Your task to perform on an android device: allow notifications from all sites in the chrome app Image 0: 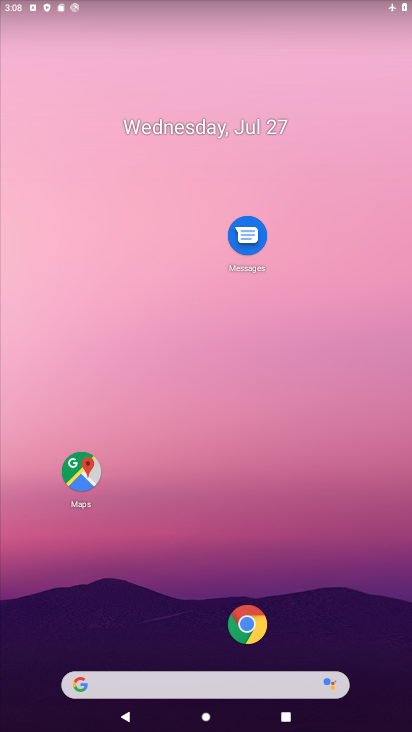
Step 0: click (251, 626)
Your task to perform on an android device: allow notifications from all sites in the chrome app Image 1: 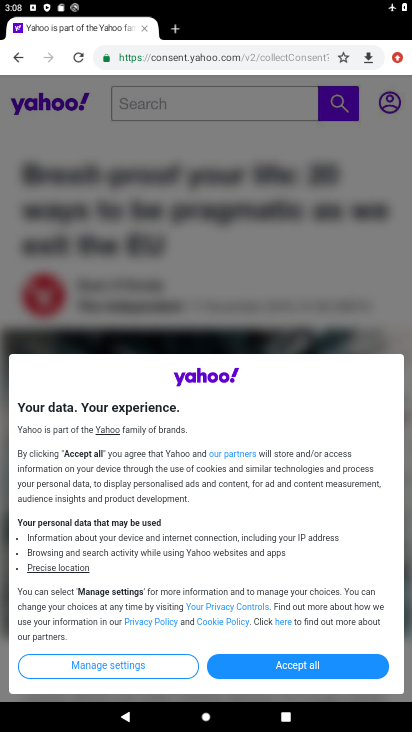
Step 1: click (396, 59)
Your task to perform on an android device: allow notifications from all sites in the chrome app Image 2: 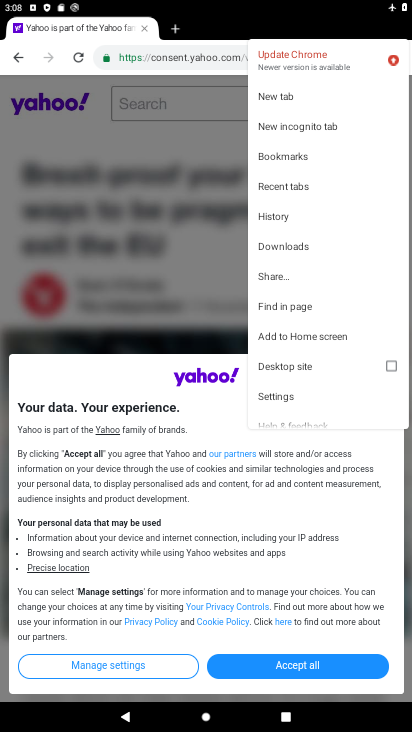
Step 2: click (310, 395)
Your task to perform on an android device: allow notifications from all sites in the chrome app Image 3: 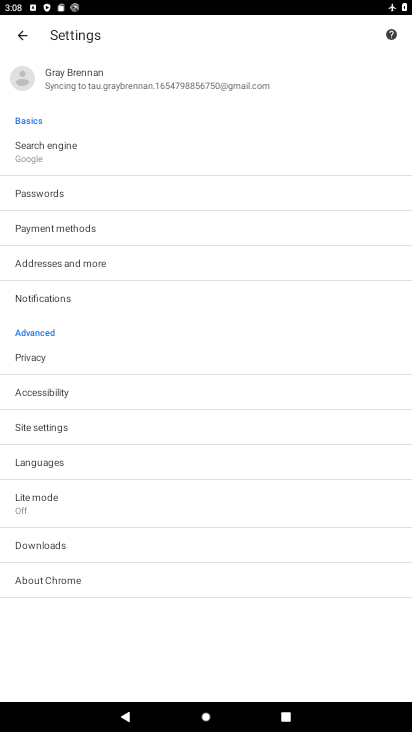
Step 3: click (32, 300)
Your task to perform on an android device: allow notifications from all sites in the chrome app Image 4: 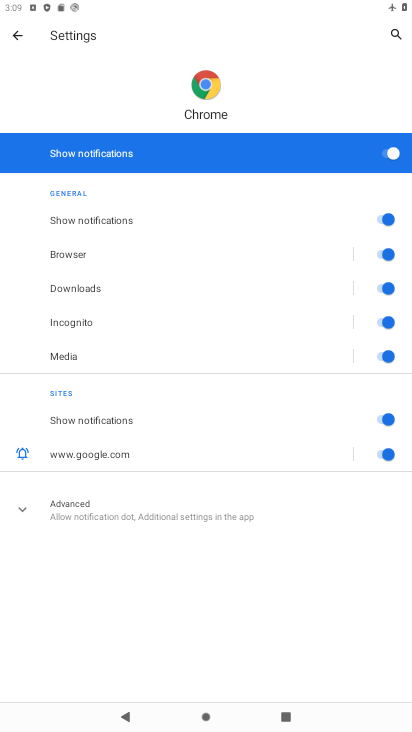
Step 4: task complete